Your task to perform on an android device: Open Chrome and go to settings Image 0: 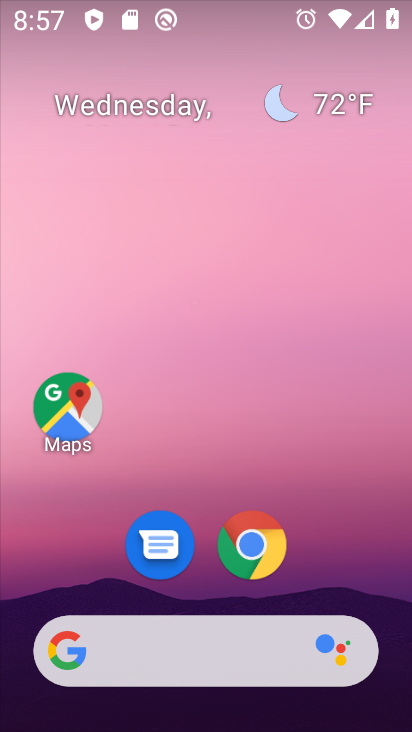
Step 0: drag from (316, 673) to (131, 1)
Your task to perform on an android device: Open Chrome and go to settings Image 1: 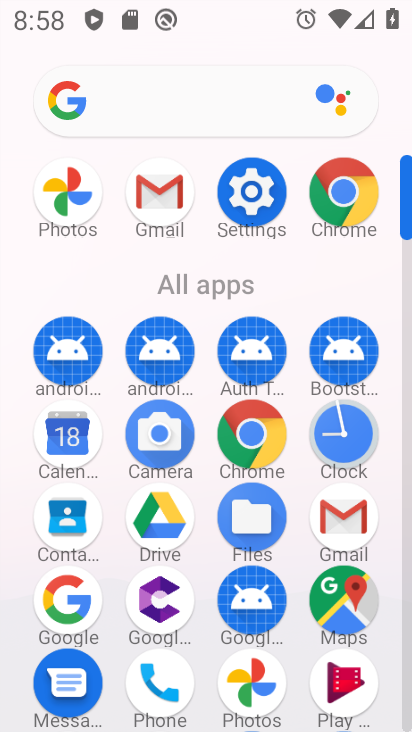
Step 1: click (266, 198)
Your task to perform on an android device: Open Chrome and go to settings Image 2: 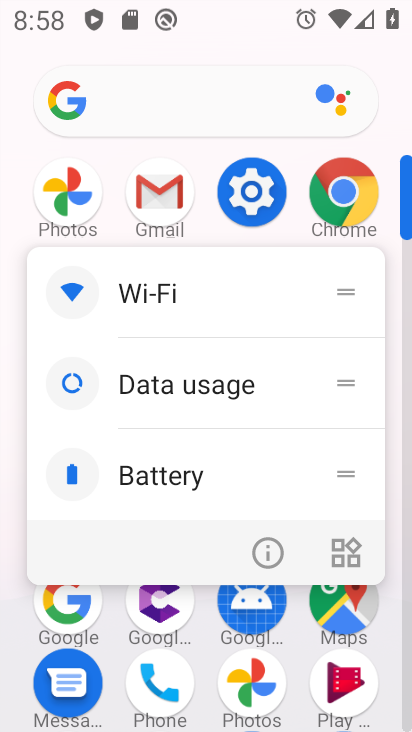
Step 2: click (264, 197)
Your task to perform on an android device: Open Chrome and go to settings Image 3: 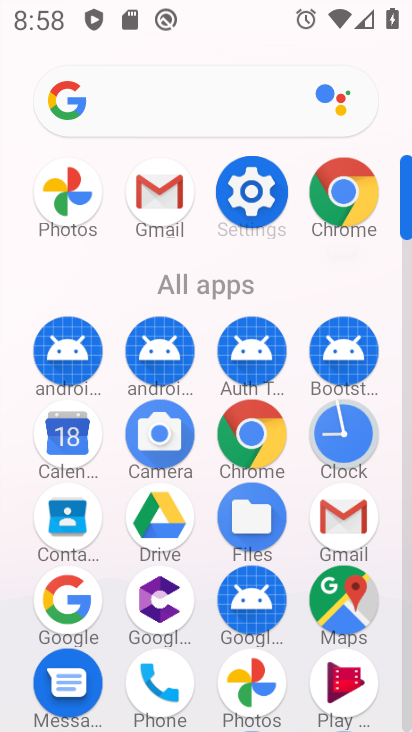
Step 3: click (264, 197)
Your task to perform on an android device: Open Chrome and go to settings Image 4: 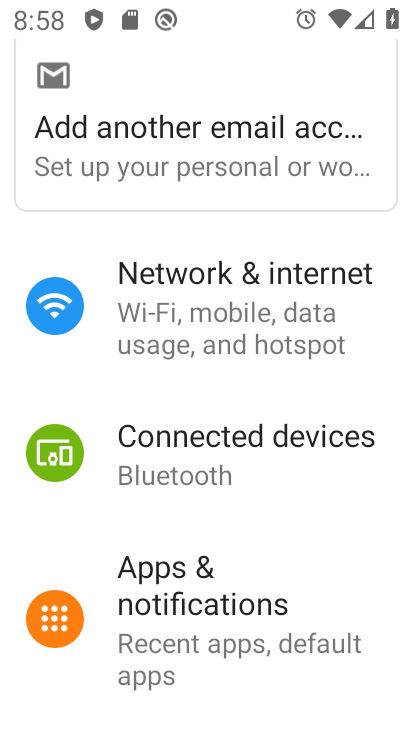
Step 4: task complete